Your task to perform on an android device: Open calendar and show me the fourth week of next month Image 0: 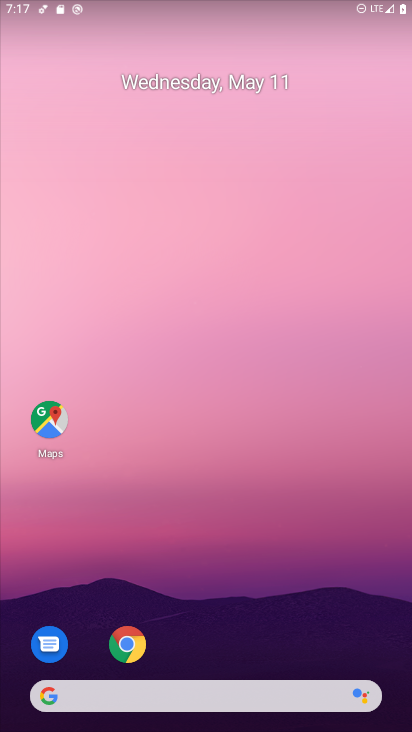
Step 0: drag from (255, 497) to (173, 18)
Your task to perform on an android device: Open calendar and show me the fourth week of next month Image 1: 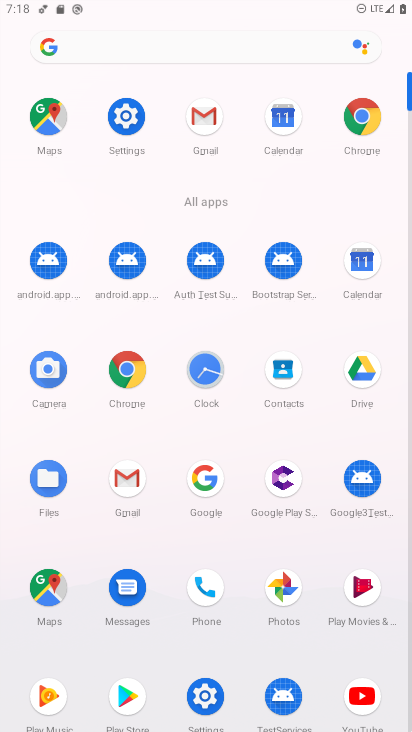
Step 1: click (358, 258)
Your task to perform on an android device: Open calendar and show me the fourth week of next month Image 2: 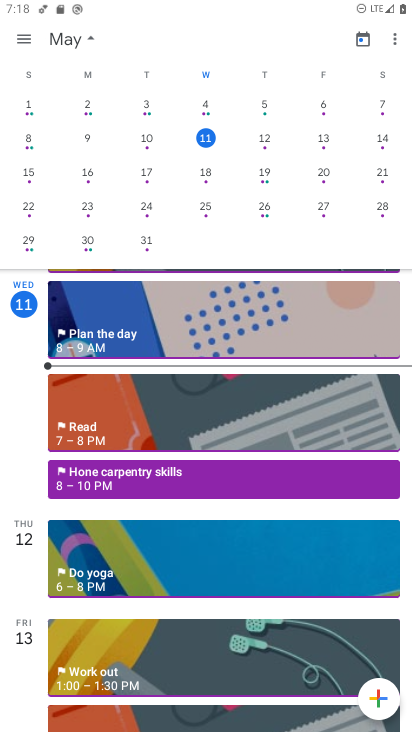
Step 2: click (21, 39)
Your task to perform on an android device: Open calendar and show me the fourth week of next month Image 3: 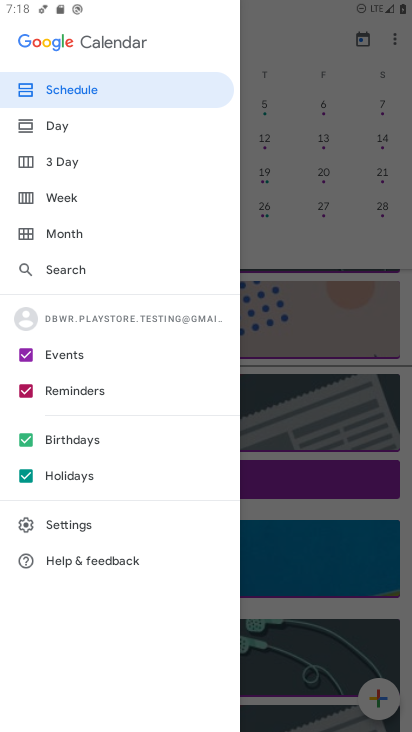
Step 3: click (65, 193)
Your task to perform on an android device: Open calendar and show me the fourth week of next month Image 4: 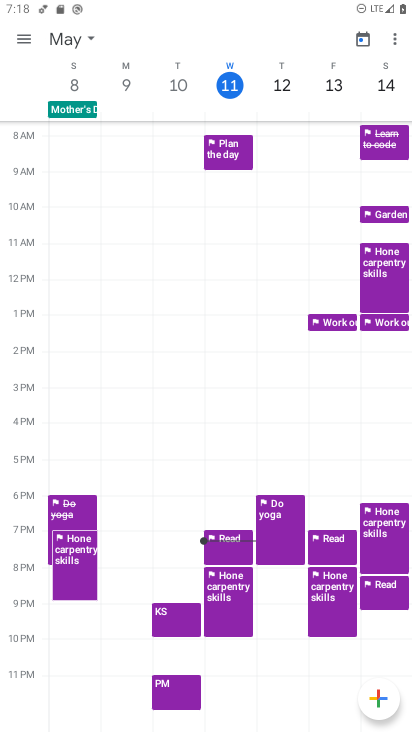
Step 4: click (96, 31)
Your task to perform on an android device: Open calendar and show me the fourth week of next month Image 5: 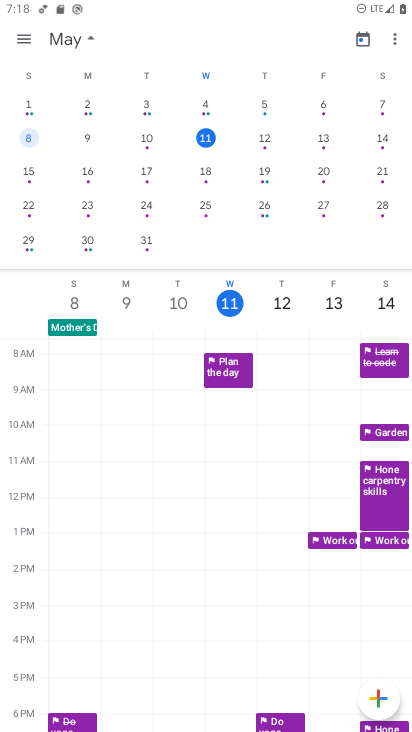
Step 5: drag from (361, 150) to (18, 161)
Your task to perform on an android device: Open calendar and show me the fourth week of next month Image 6: 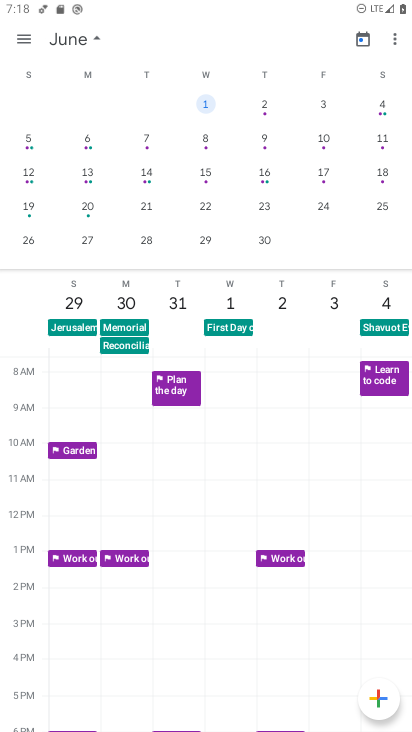
Step 6: click (207, 205)
Your task to perform on an android device: Open calendar and show me the fourth week of next month Image 7: 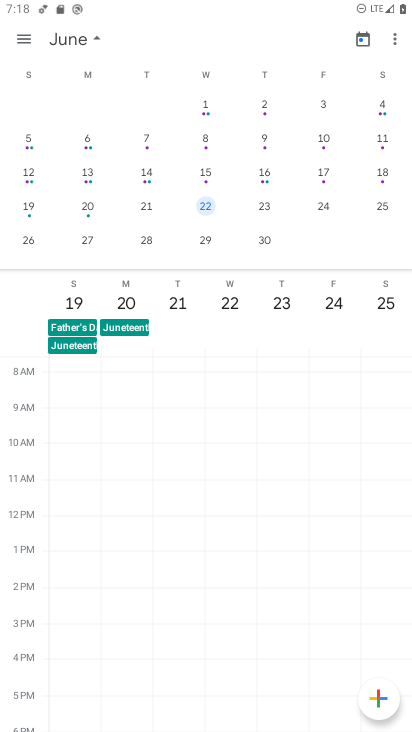
Step 7: task complete